Your task to perform on an android device: turn on airplane mode Image 0: 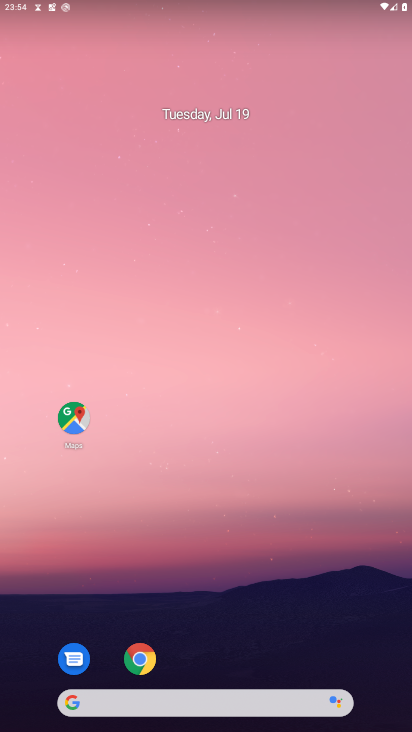
Step 0: drag from (360, 4) to (334, 343)
Your task to perform on an android device: turn on airplane mode Image 1: 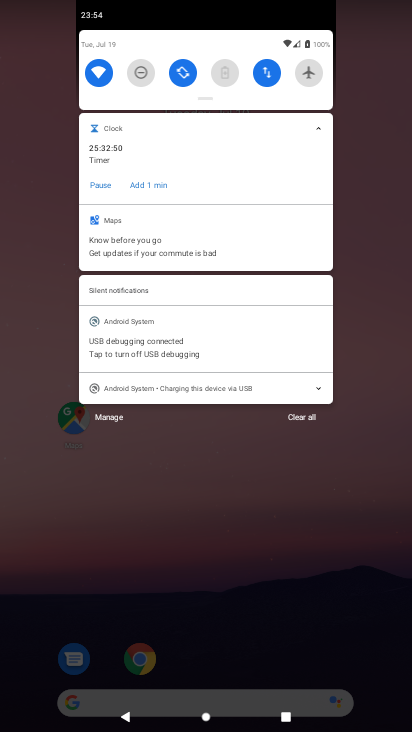
Step 1: click (309, 71)
Your task to perform on an android device: turn on airplane mode Image 2: 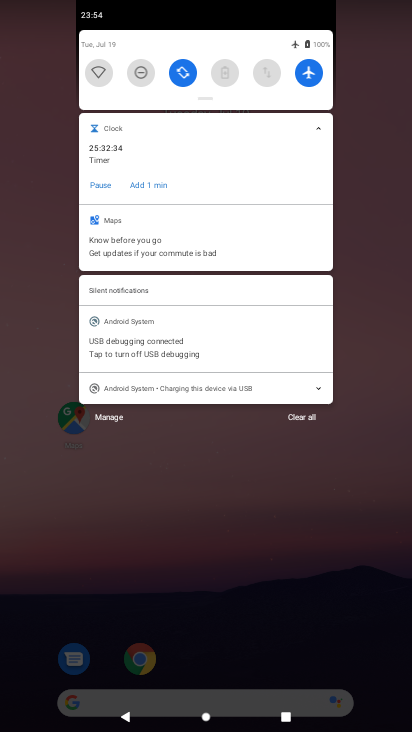
Step 2: task complete